Your task to perform on an android device: Go to display settings Image 0: 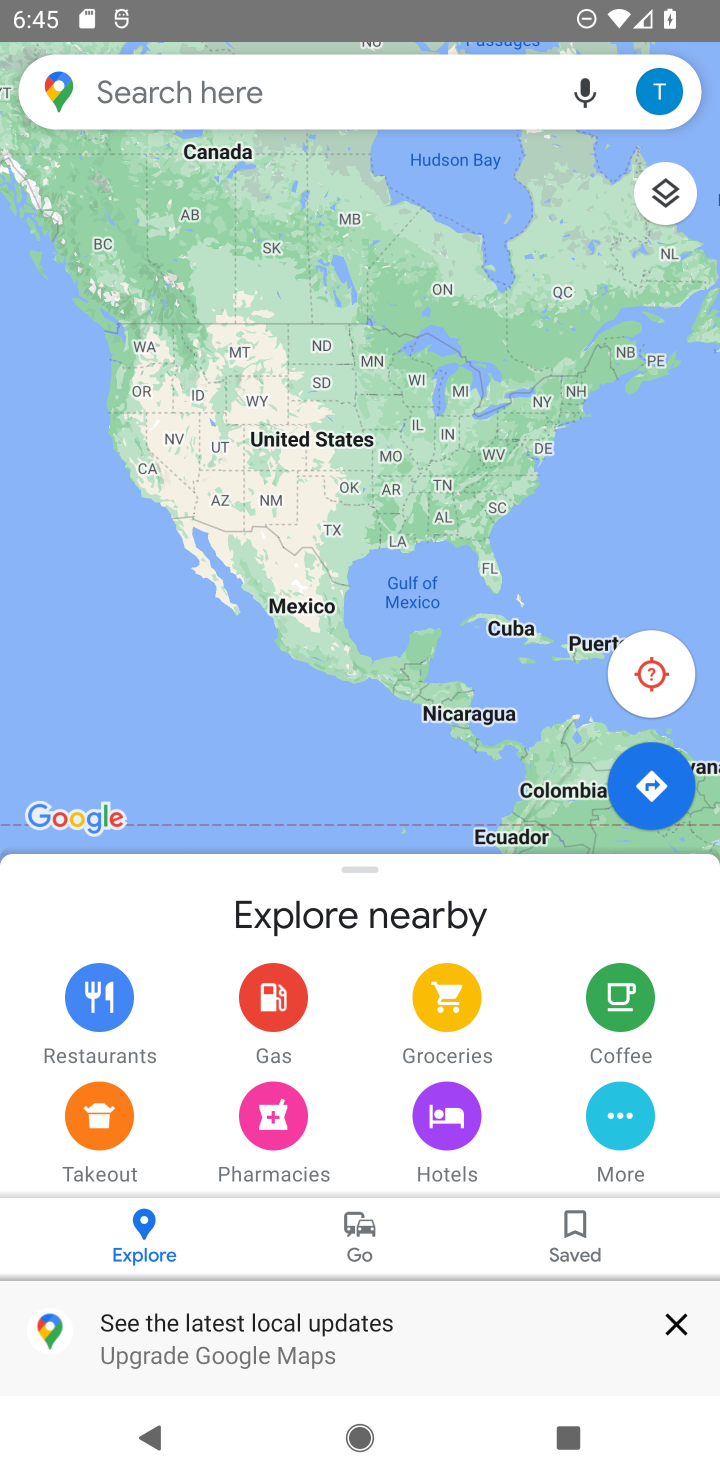
Step 0: press home button
Your task to perform on an android device: Go to display settings Image 1: 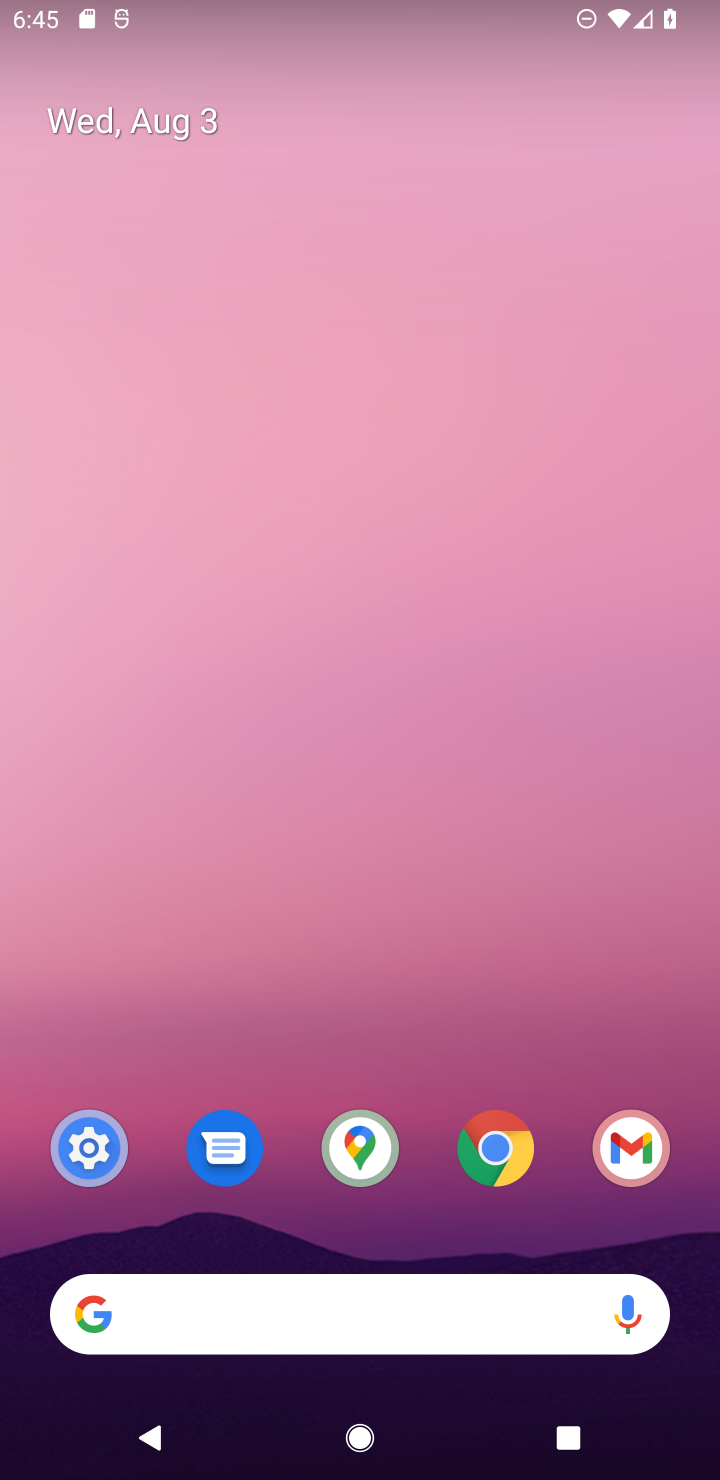
Step 1: click (87, 1137)
Your task to perform on an android device: Go to display settings Image 2: 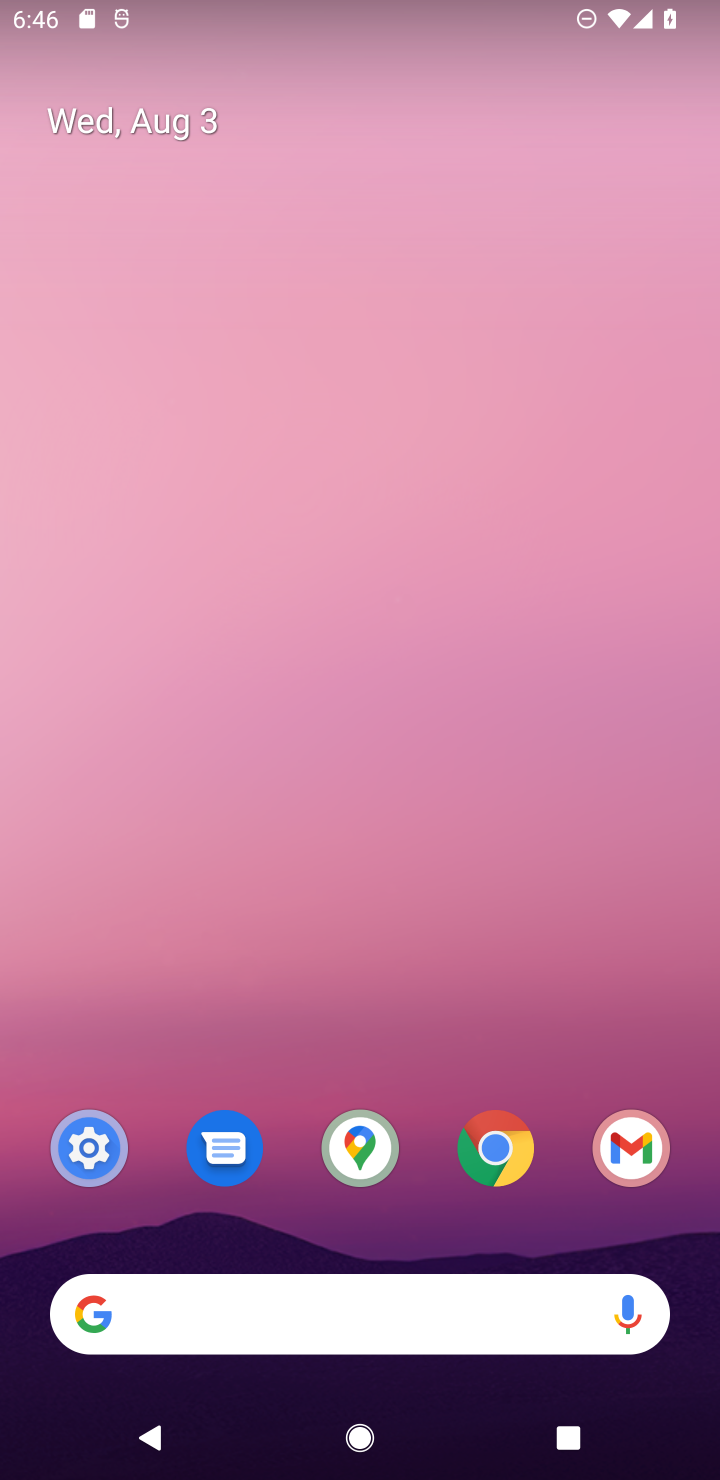
Step 2: click (87, 1142)
Your task to perform on an android device: Go to display settings Image 3: 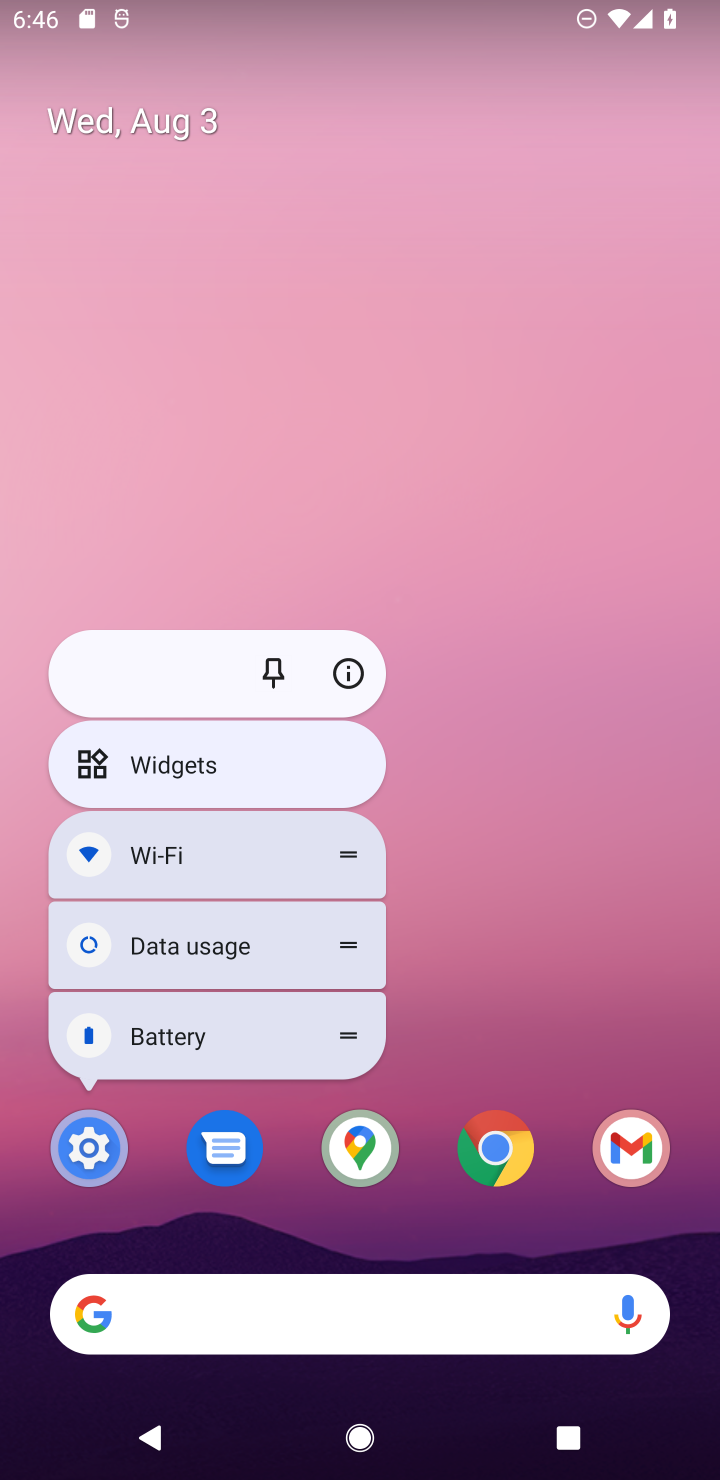
Step 3: click (87, 1160)
Your task to perform on an android device: Go to display settings Image 4: 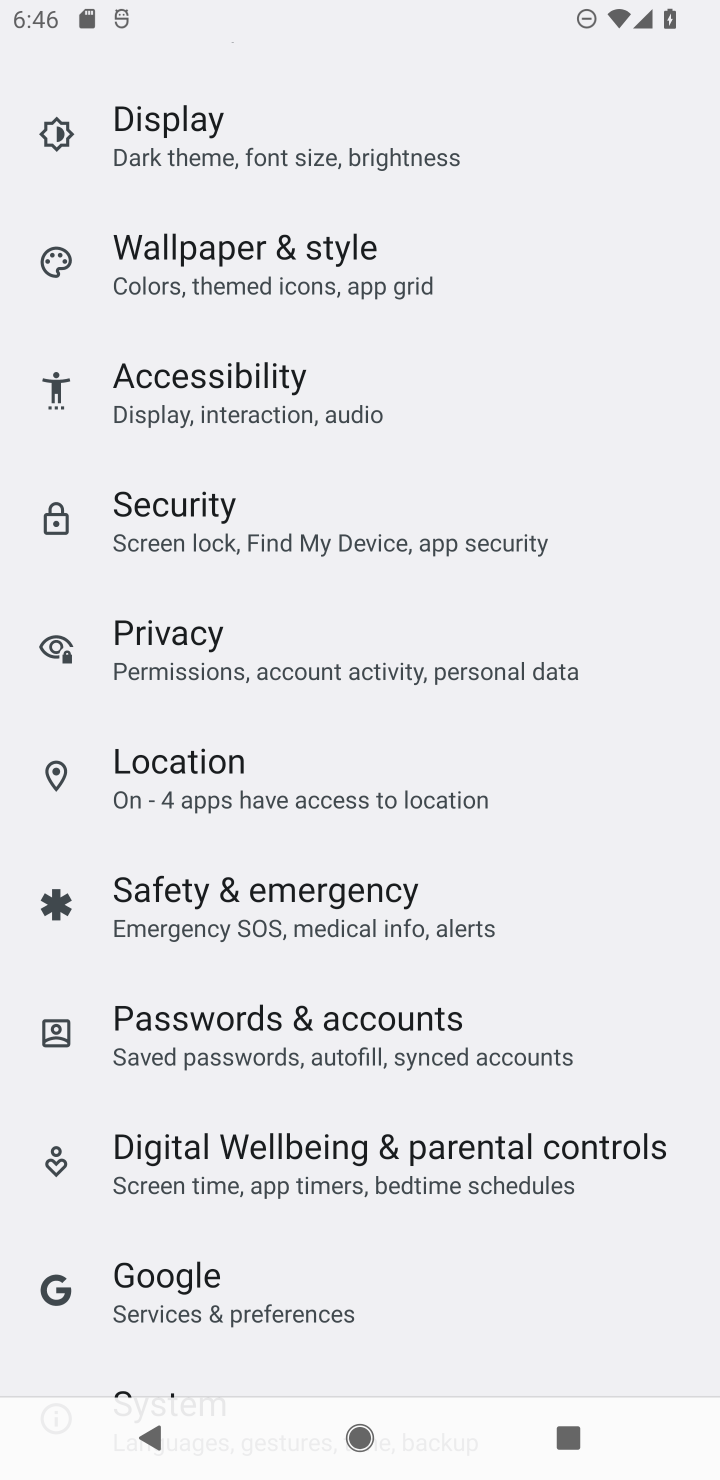
Step 4: press back button
Your task to perform on an android device: Go to display settings Image 5: 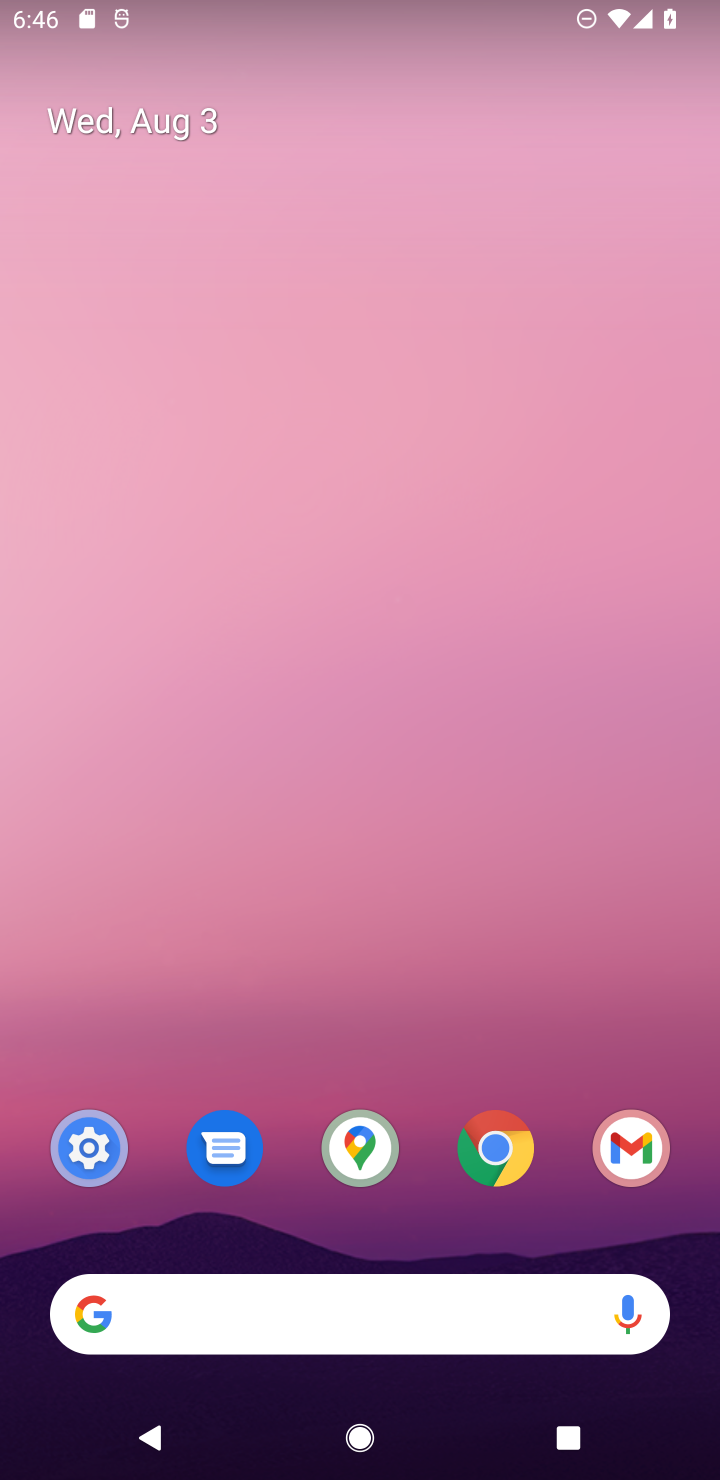
Step 5: click (98, 1135)
Your task to perform on an android device: Go to display settings Image 6: 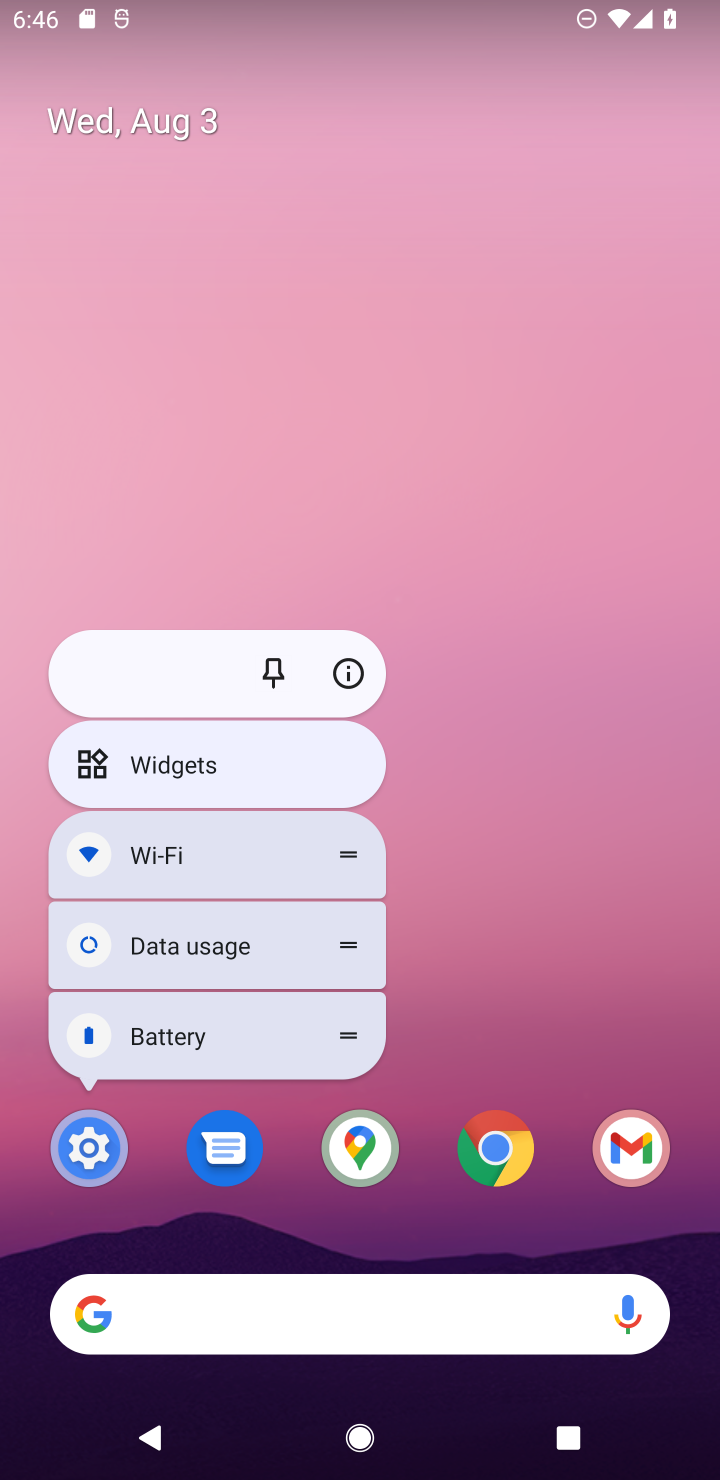
Step 6: click (85, 1169)
Your task to perform on an android device: Go to display settings Image 7: 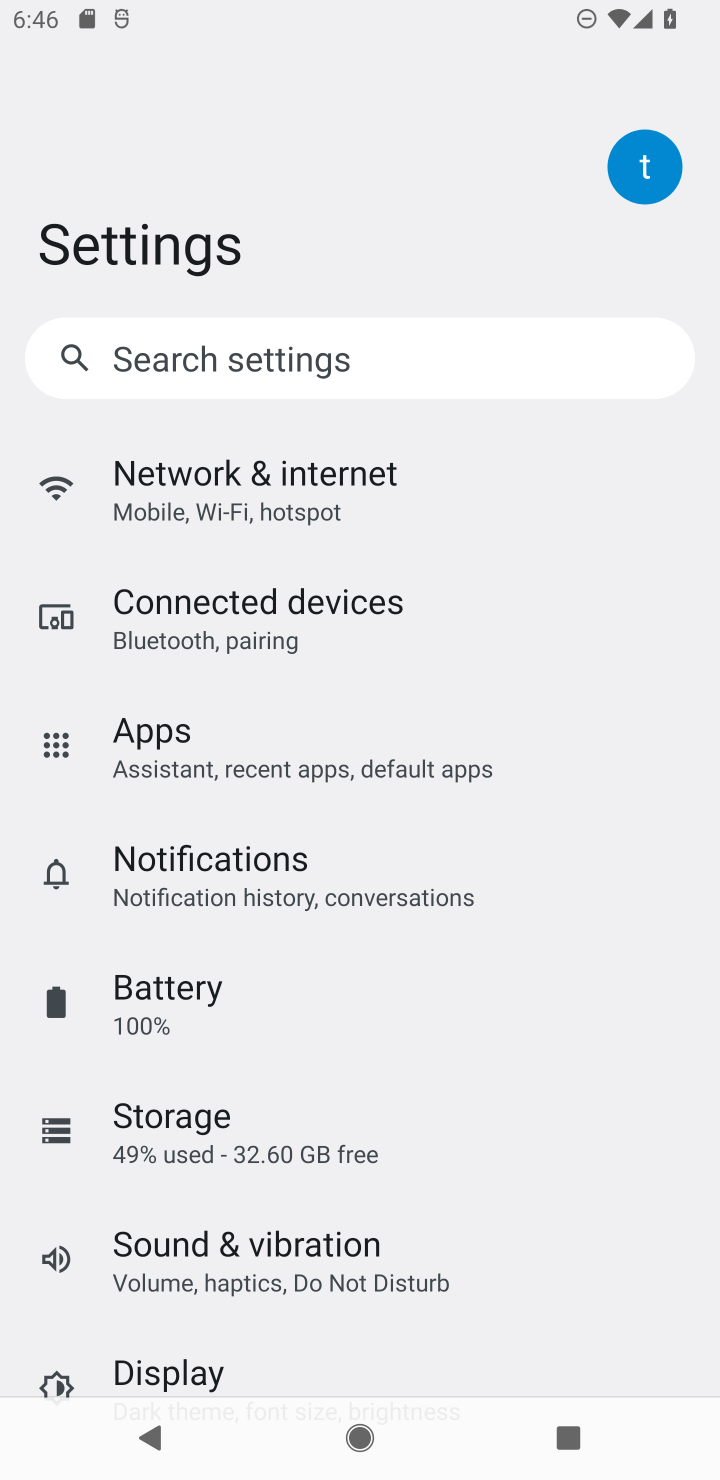
Step 7: click (113, 1360)
Your task to perform on an android device: Go to display settings Image 8: 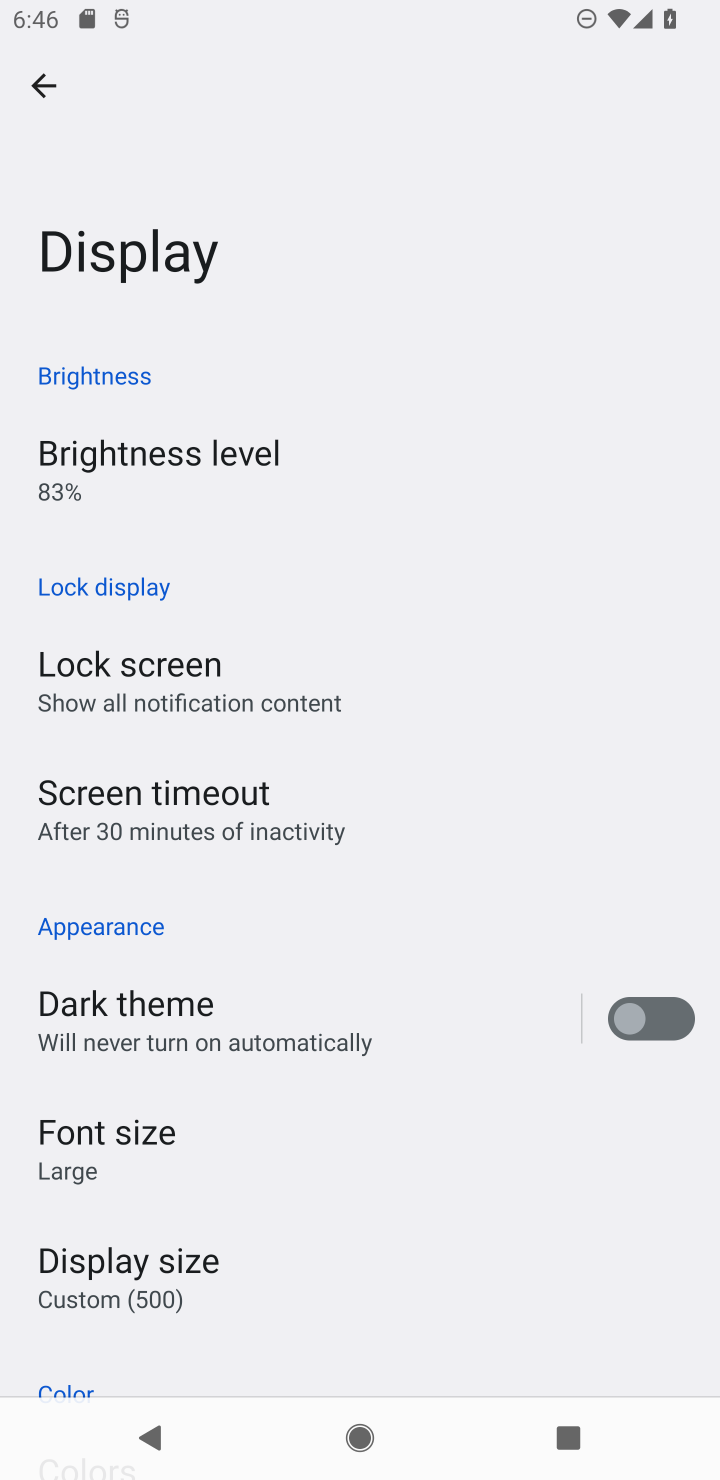
Step 8: task complete